Your task to perform on an android device: set the timer Image 0: 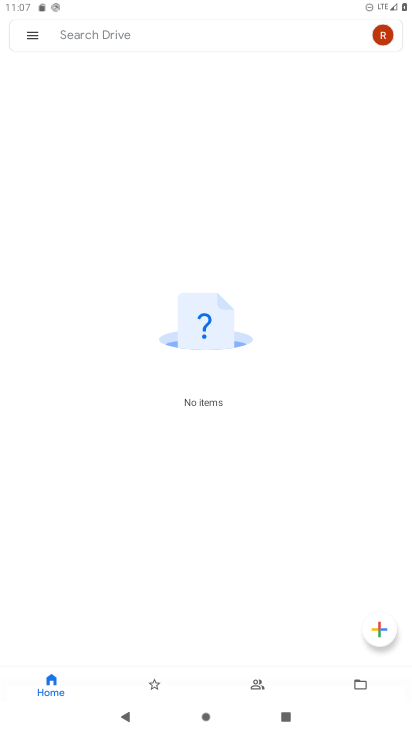
Step 0: press home button
Your task to perform on an android device: set the timer Image 1: 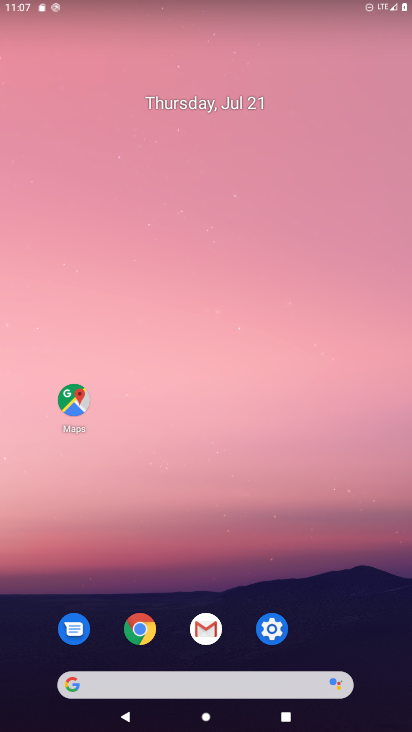
Step 1: drag from (207, 496) to (171, 153)
Your task to perform on an android device: set the timer Image 2: 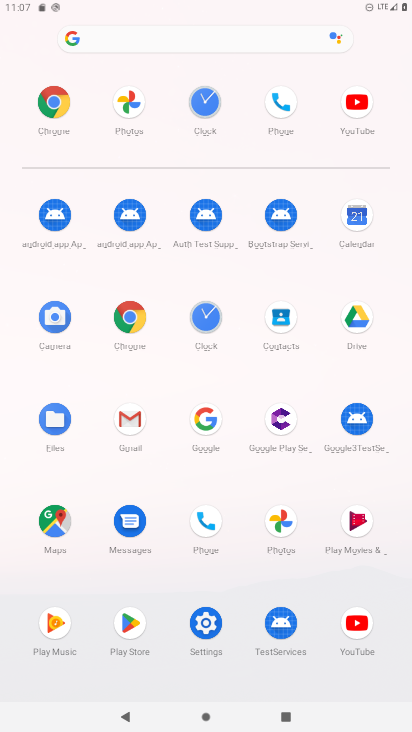
Step 2: click (202, 320)
Your task to perform on an android device: set the timer Image 3: 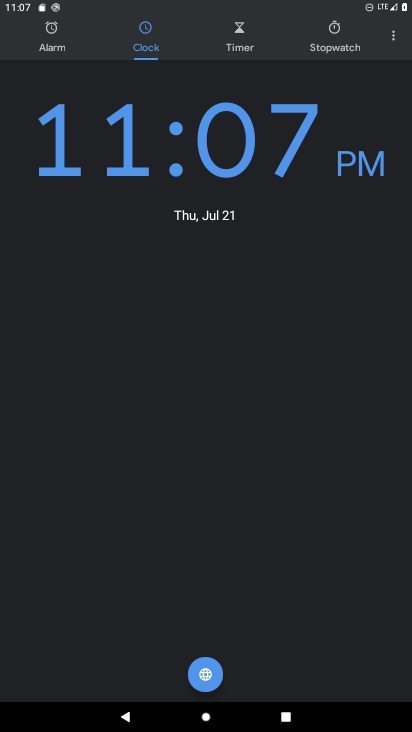
Step 3: click (402, 45)
Your task to perform on an android device: set the timer Image 4: 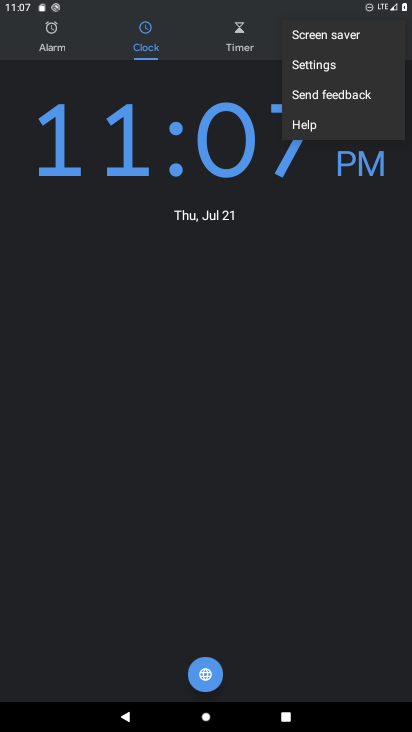
Step 4: click (318, 70)
Your task to perform on an android device: set the timer Image 5: 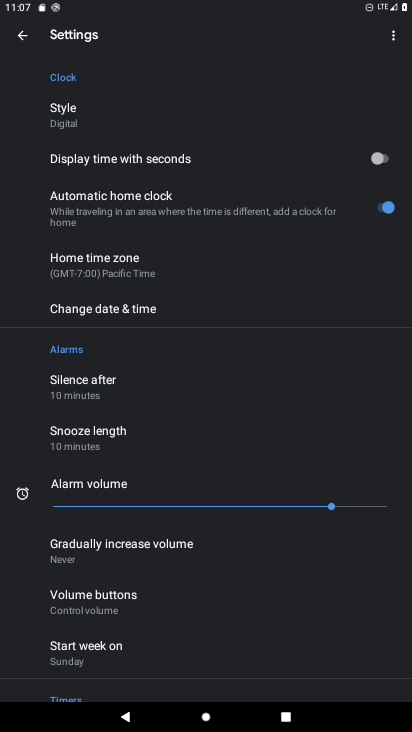
Step 5: click (23, 37)
Your task to perform on an android device: set the timer Image 6: 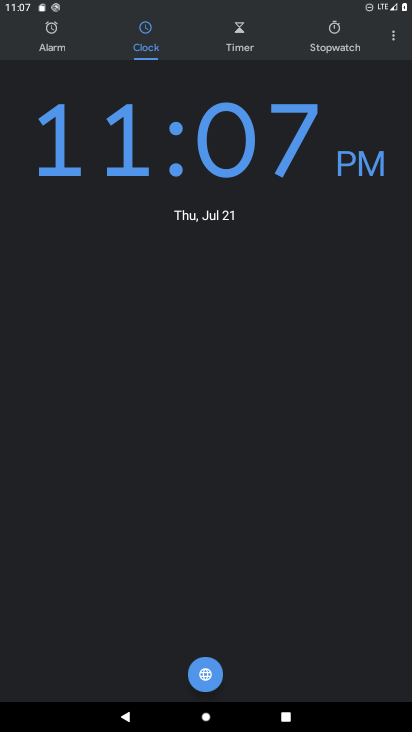
Step 6: click (246, 45)
Your task to perform on an android device: set the timer Image 7: 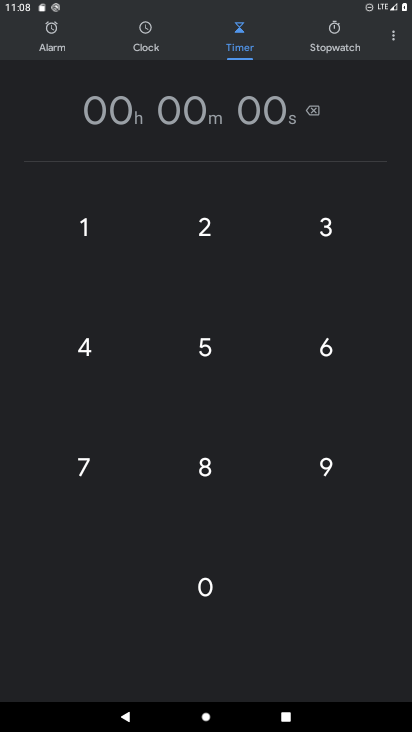
Step 7: click (197, 336)
Your task to perform on an android device: set the timer Image 8: 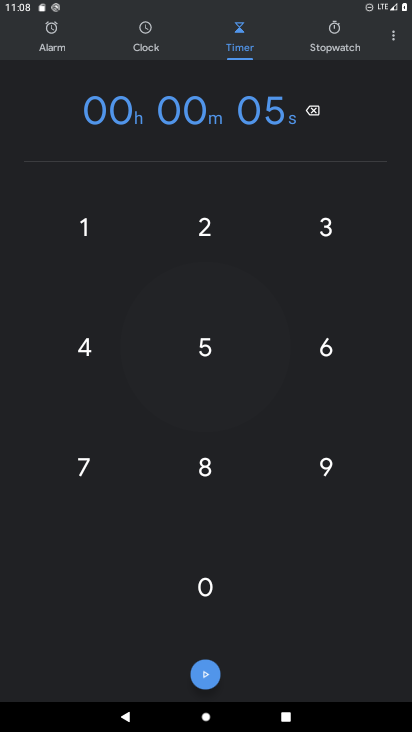
Step 8: click (104, 215)
Your task to perform on an android device: set the timer Image 9: 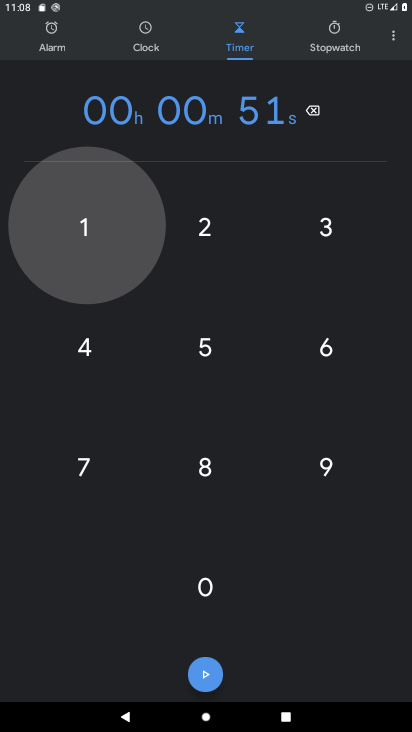
Step 9: click (174, 241)
Your task to perform on an android device: set the timer Image 10: 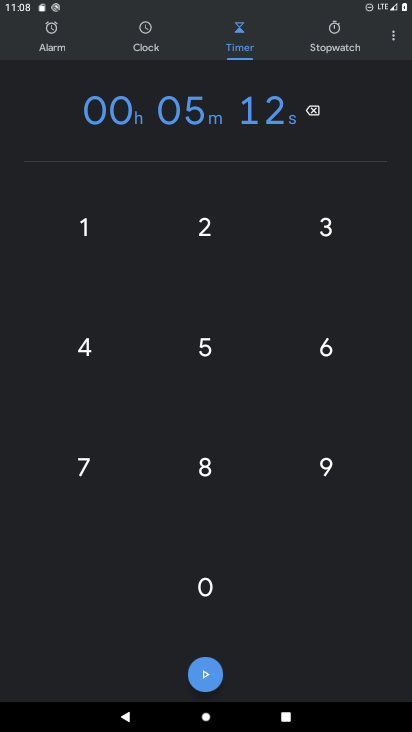
Step 10: click (187, 300)
Your task to perform on an android device: set the timer Image 11: 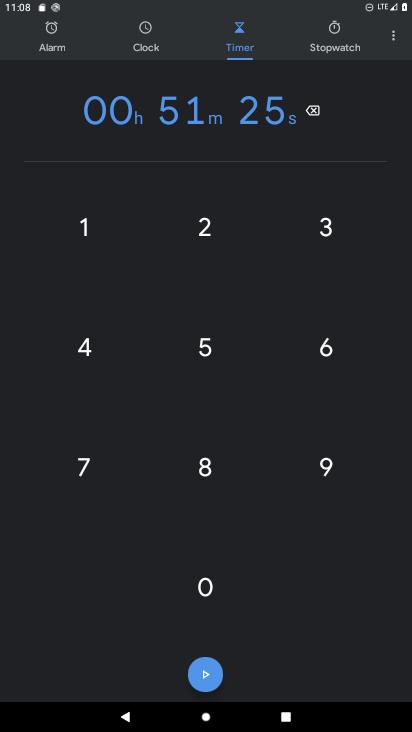
Step 11: click (306, 357)
Your task to perform on an android device: set the timer Image 12: 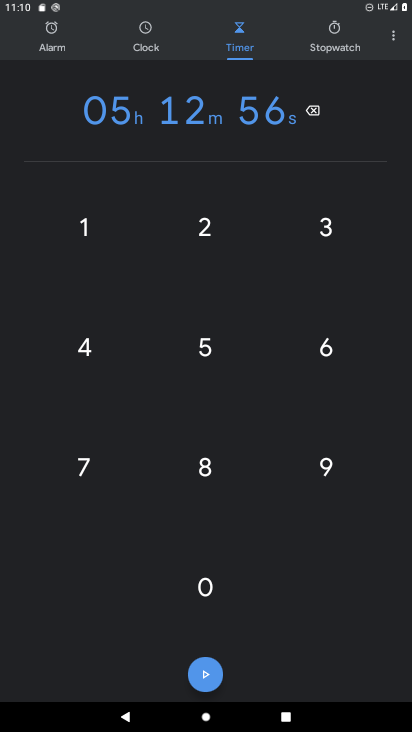
Step 12: task complete